Your task to perform on an android device: Go to network settings Image 0: 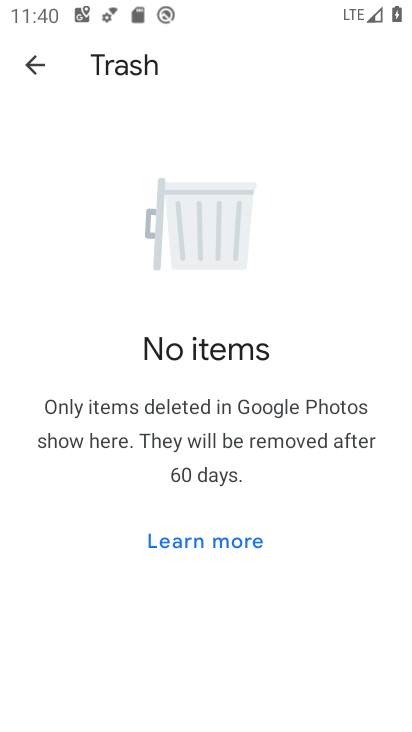
Step 0: press home button
Your task to perform on an android device: Go to network settings Image 1: 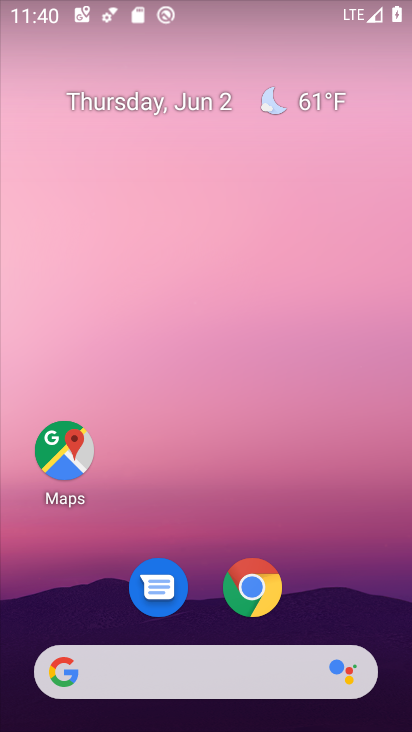
Step 1: drag from (205, 474) to (243, 0)
Your task to perform on an android device: Go to network settings Image 2: 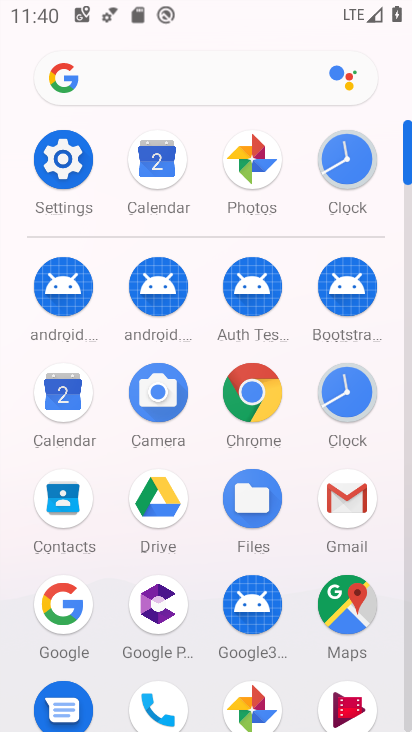
Step 2: click (70, 161)
Your task to perform on an android device: Go to network settings Image 3: 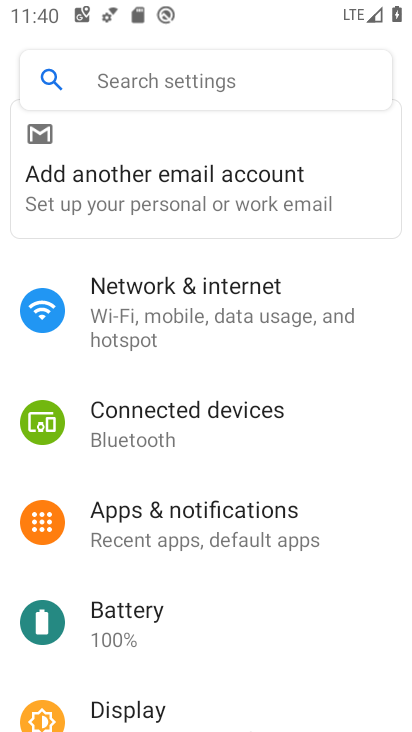
Step 3: click (243, 303)
Your task to perform on an android device: Go to network settings Image 4: 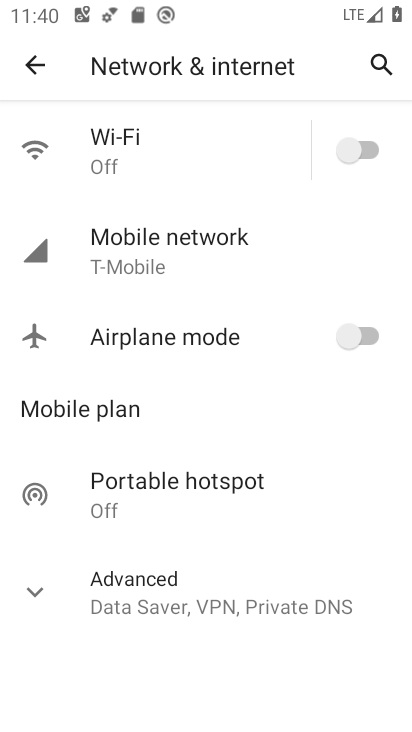
Step 4: task complete